Your task to perform on an android device: Open Google Maps Image 0: 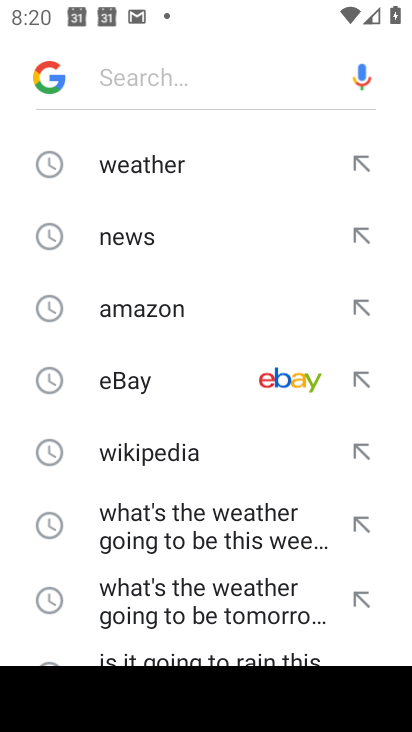
Step 0: press home button
Your task to perform on an android device: Open Google Maps Image 1: 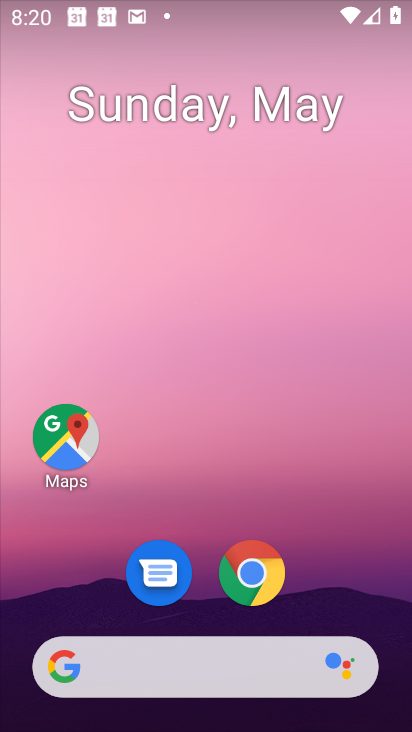
Step 1: click (54, 437)
Your task to perform on an android device: Open Google Maps Image 2: 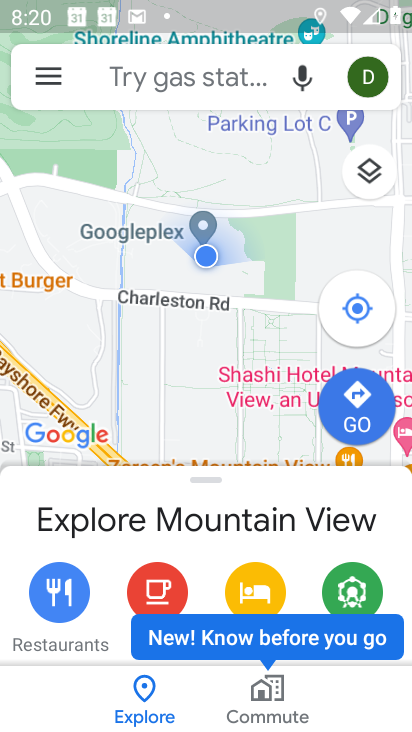
Step 2: task complete